Your task to perform on an android device: Go to Wikipedia Image 0: 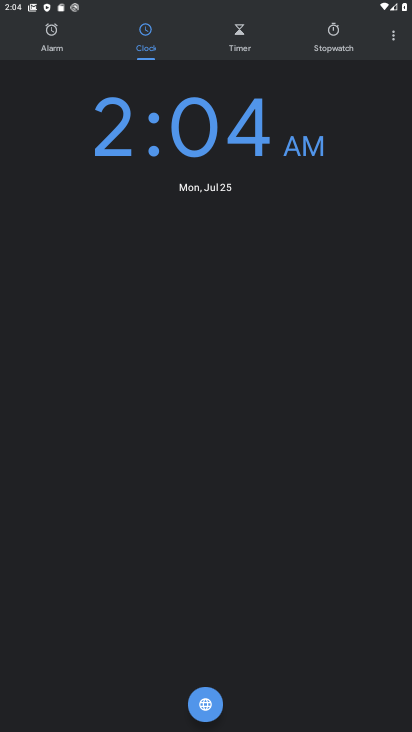
Step 0: press home button
Your task to perform on an android device: Go to Wikipedia Image 1: 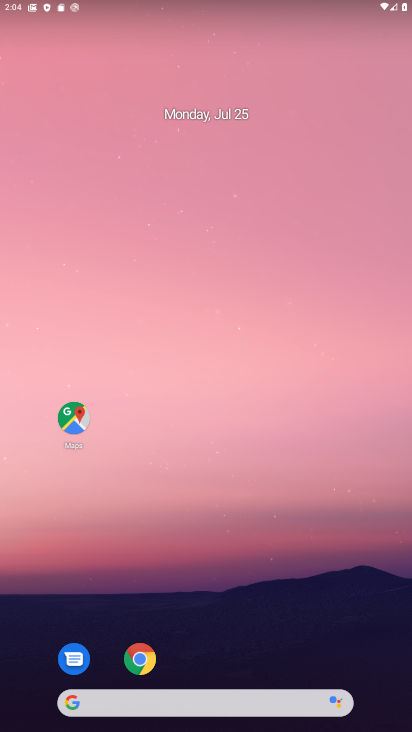
Step 1: drag from (238, 681) to (293, 114)
Your task to perform on an android device: Go to Wikipedia Image 2: 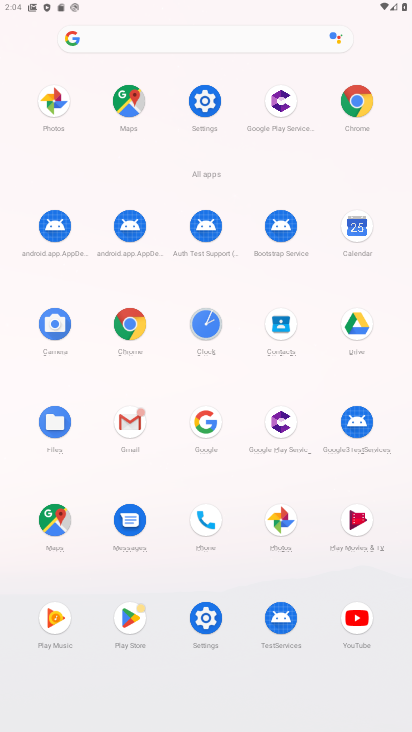
Step 2: click (137, 324)
Your task to perform on an android device: Go to Wikipedia Image 3: 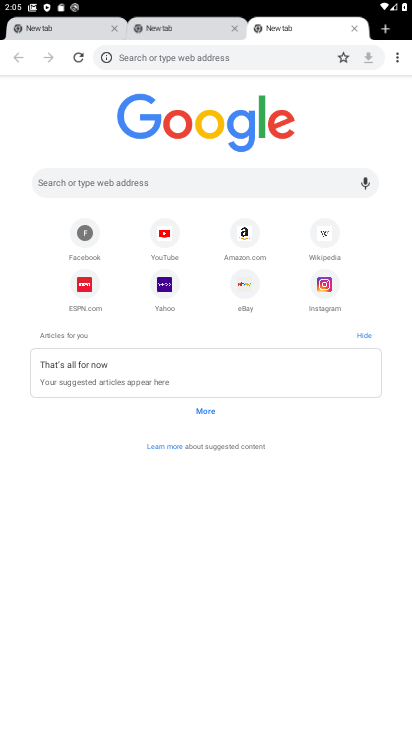
Step 3: click (337, 227)
Your task to perform on an android device: Go to Wikipedia Image 4: 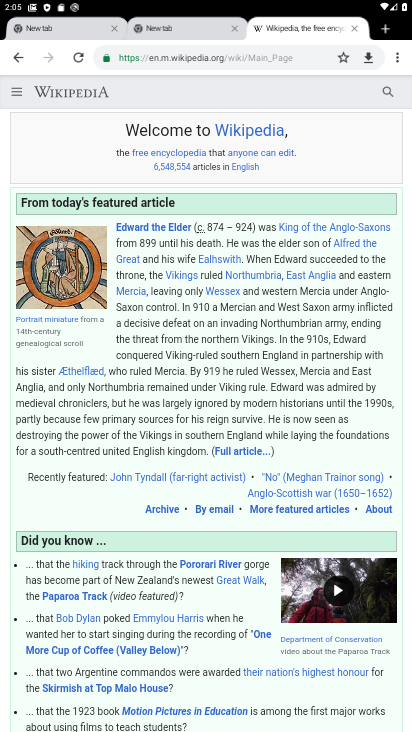
Step 4: task complete